Your task to perform on an android device: turn off notifications settings in the gmail app Image 0: 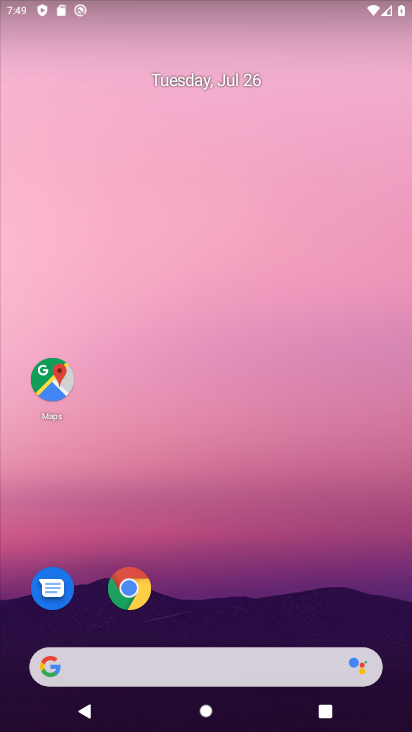
Step 0: drag from (163, 645) to (240, 165)
Your task to perform on an android device: turn off notifications settings in the gmail app Image 1: 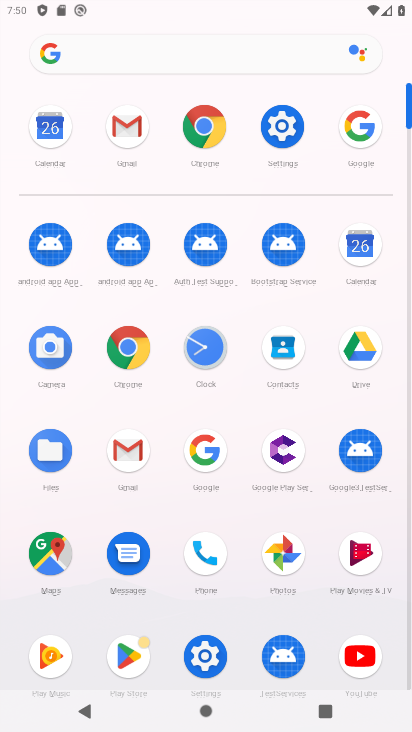
Step 1: click (124, 455)
Your task to perform on an android device: turn off notifications settings in the gmail app Image 2: 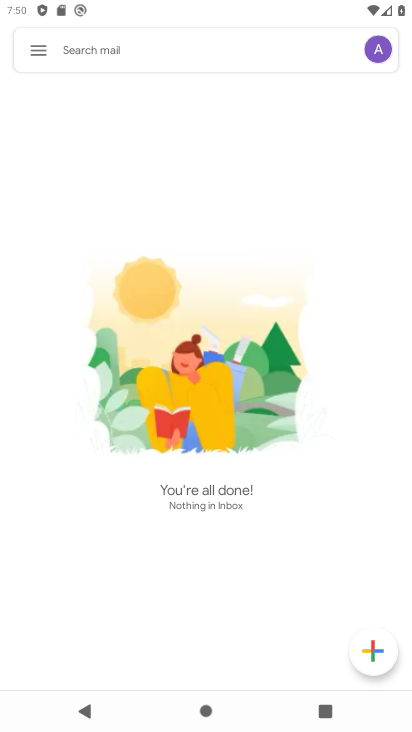
Step 2: click (43, 57)
Your task to perform on an android device: turn off notifications settings in the gmail app Image 3: 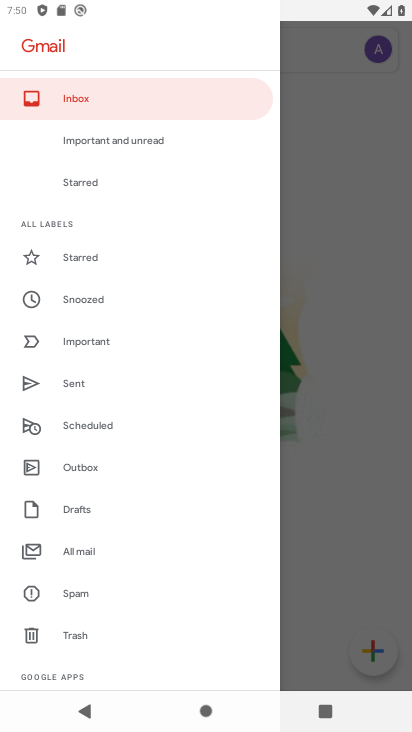
Step 3: drag from (115, 436) to (131, 306)
Your task to perform on an android device: turn off notifications settings in the gmail app Image 4: 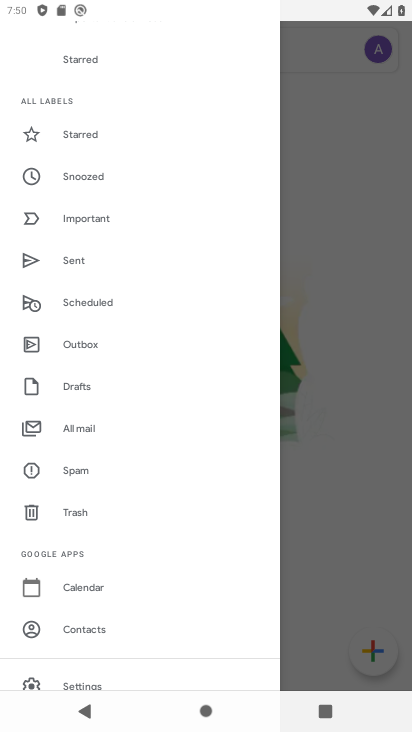
Step 4: click (85, 681)
Your task to perform on an android device: turn off notifications settings in the gmail app Image 5: 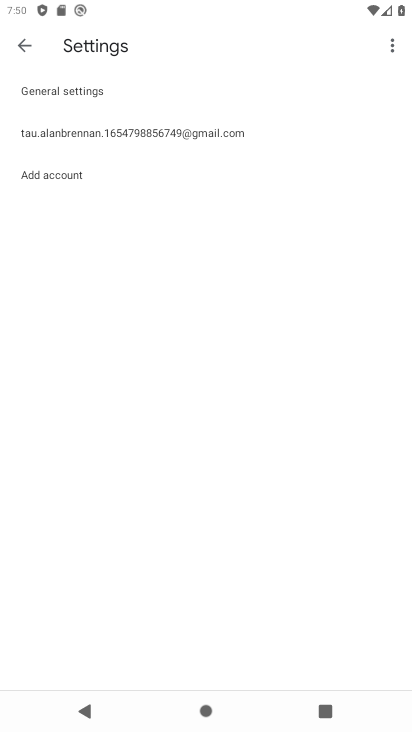
Step 5: click (77, 137)
Your task to perform on an android device: turn off notifications settings in the gmail app Image 6: 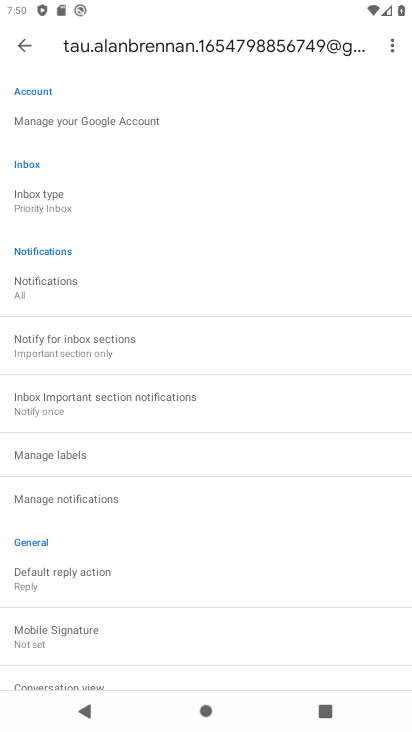
Step 6: click (58, 501)
Your task to perform on an android device: turn off notifications settings in the gmail app Image 7: 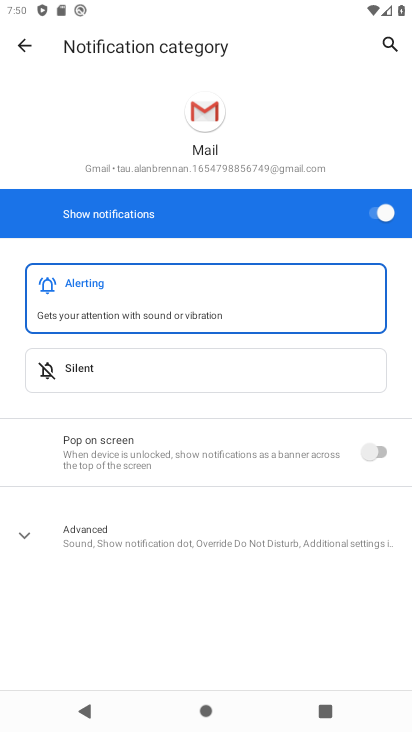
Step 7: click (379, 214)
Your task to perform on an android device: turn off notifications settings in the gmail app Image 8: 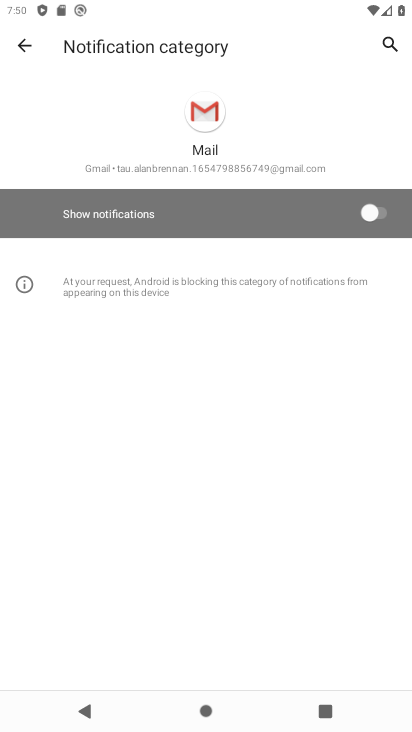
Step 8: task complete